Your task to perform on an android device: Go to CNN.com Image 0: 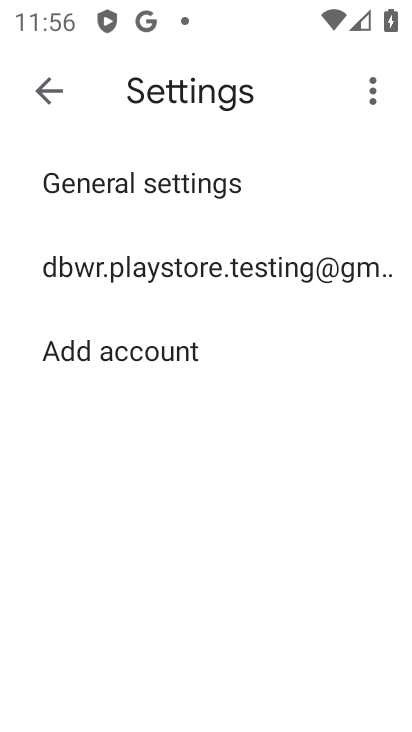
Step 0: press home button
Your task to perform on an android device: Go to CNN.com Image 1: 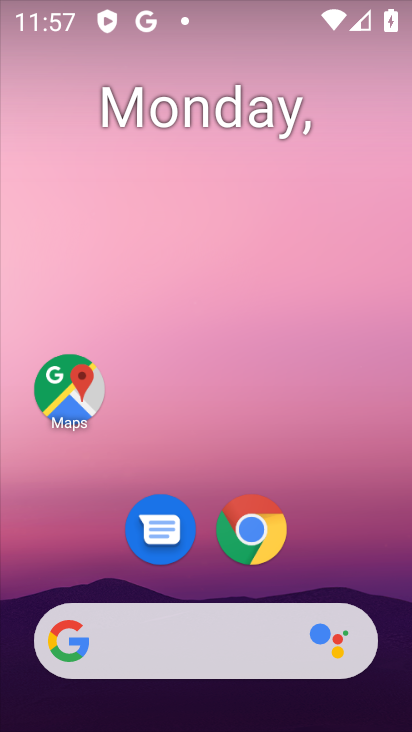
Step 1: click (254, 523)
Your task to perform on an android device: Go to CNN.com Image 2: 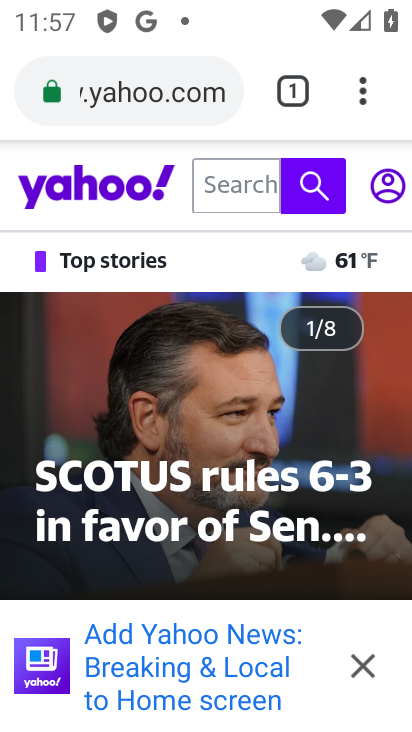
Step 2: click (366, 103)
Your task to perform on an android device: Go to CNN.com Image 3: 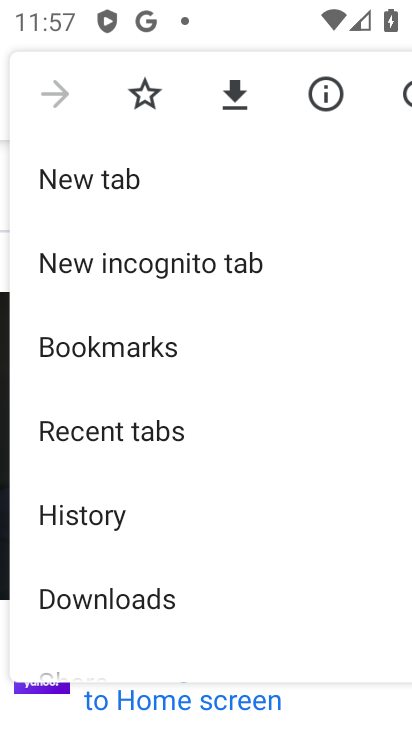
Step 3: click (90, 172)
Your task to perform on an android device: Go to CNN.com Image 4: 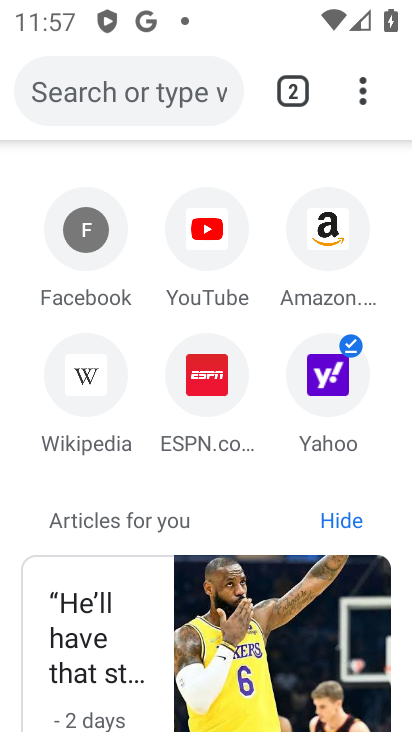
Step 4: drag from (150, 208) to (157, 584)
Your task to perform on an android device: Go to CNN.com Image 5: 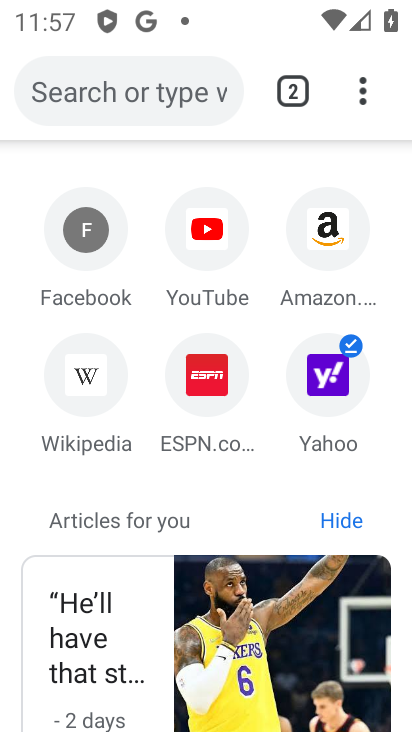
Step 5: click (161, 88)
Your task to perform on an android device: Go to CNN.com Image 6: 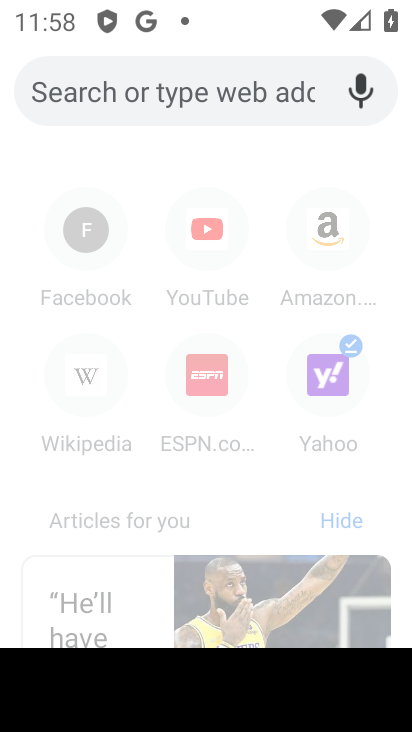
Step 6: type "CNN.com"
Your task to perform on an android device: Go to CNN.com Image 7: 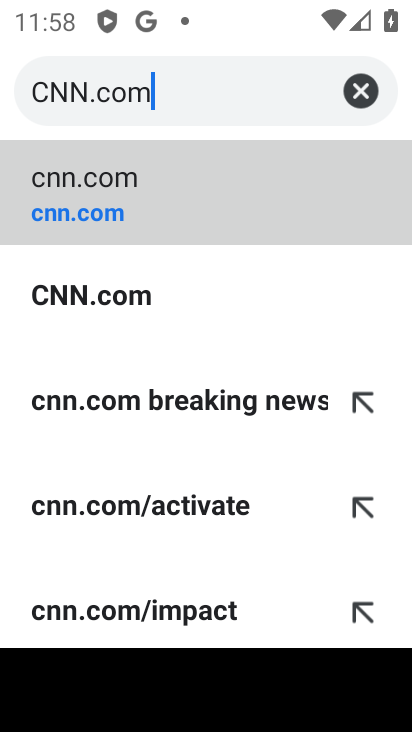
Step 7: click (87, 192)
Your task to perform on an android device: Go to CNN.com Image 8: 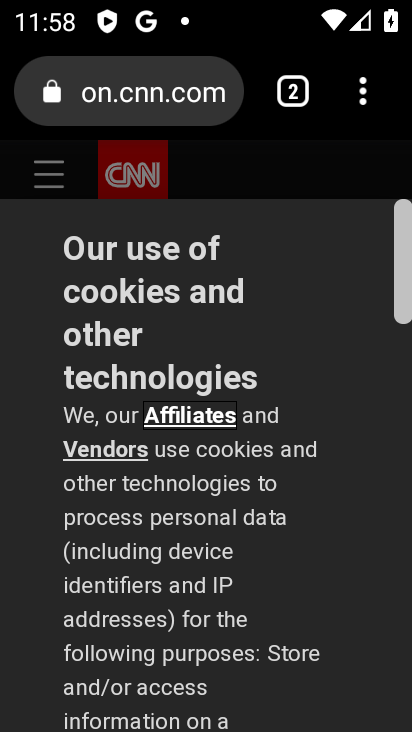
Step 8: task complete